Your task to perform on an android device: Open accessibility settings Image 0: 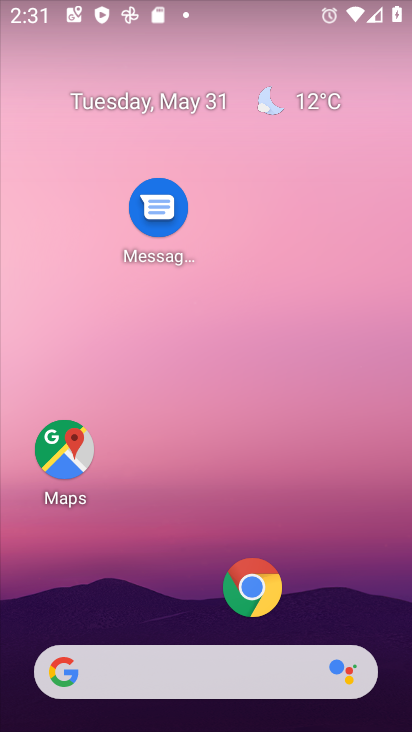
Step 0: drag from (217, 617) to (177, 375)
Your task to perform on an android device: Open accessibility settings Image 1: 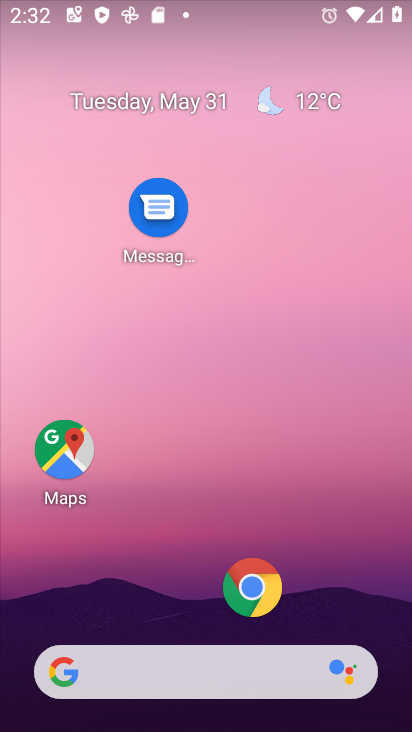
Step 1: drag from (173, 567) to (218, 134)
Your task to perform on an android device: Open accessibility settings Image 2: 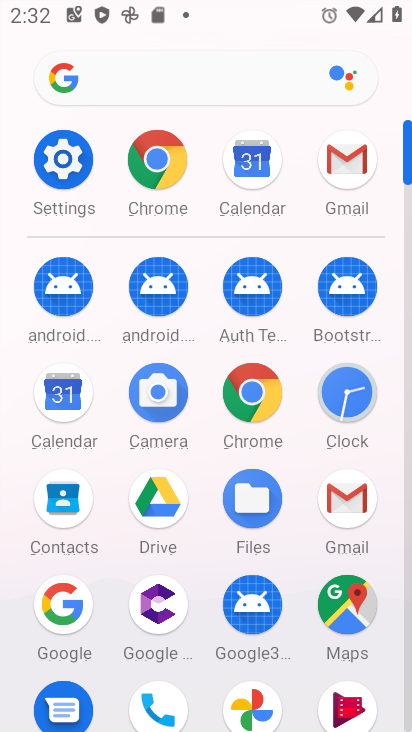
Step 2: click (76, 175)
Your task to perform on an android device: Open accessibility settings Image 3: 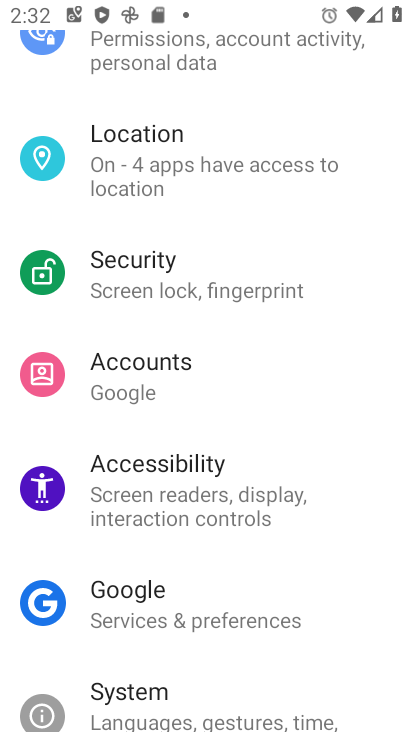
Step 3: click (126, 476)
Your task to perform on an android device: Open accessibility settings Image 4: 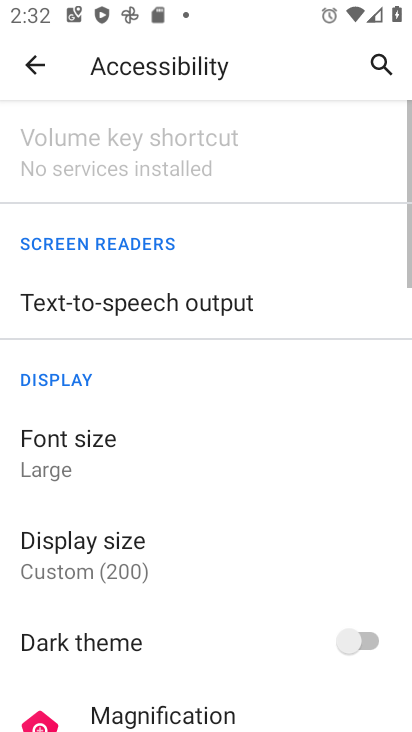
Step 4: task complete